Your task to perform on an android device: all mails in gmail Image 0: 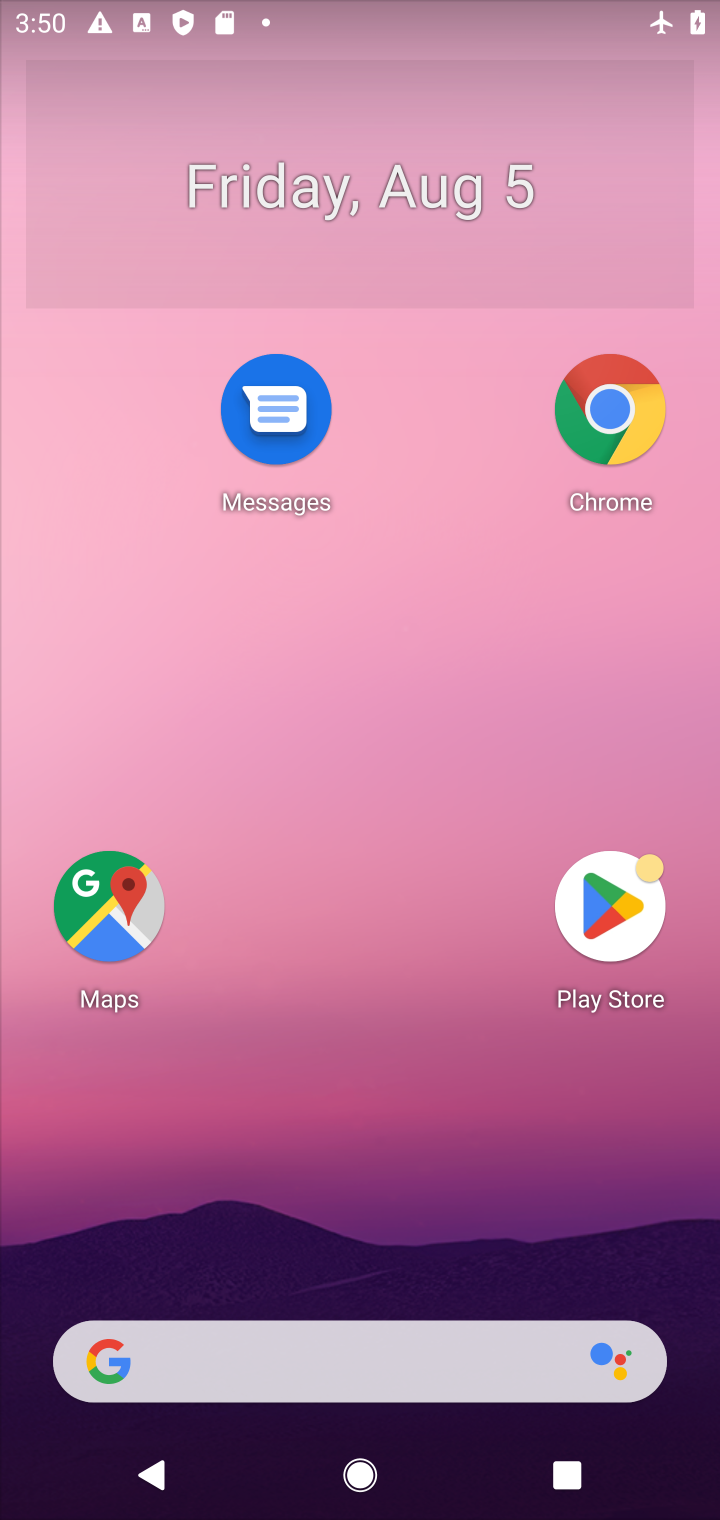
Step 0: drag from (435, 965) to (464, 381)
Your task to perform on an android device: all mails in gmail Image 1: 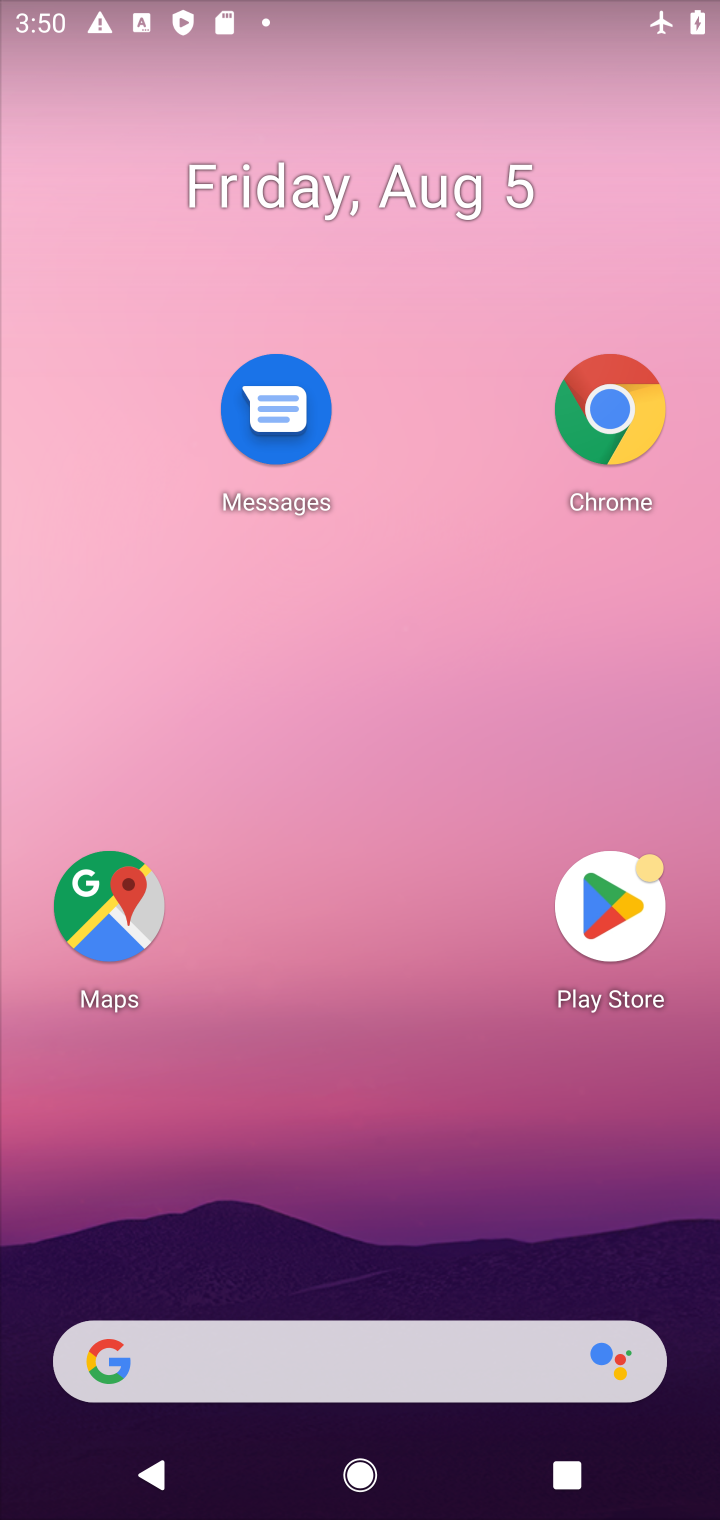
Step 1: drag from (365, 1200) to (419, 274)
Your task to perform on an android device: all mails in gmail Image 2: 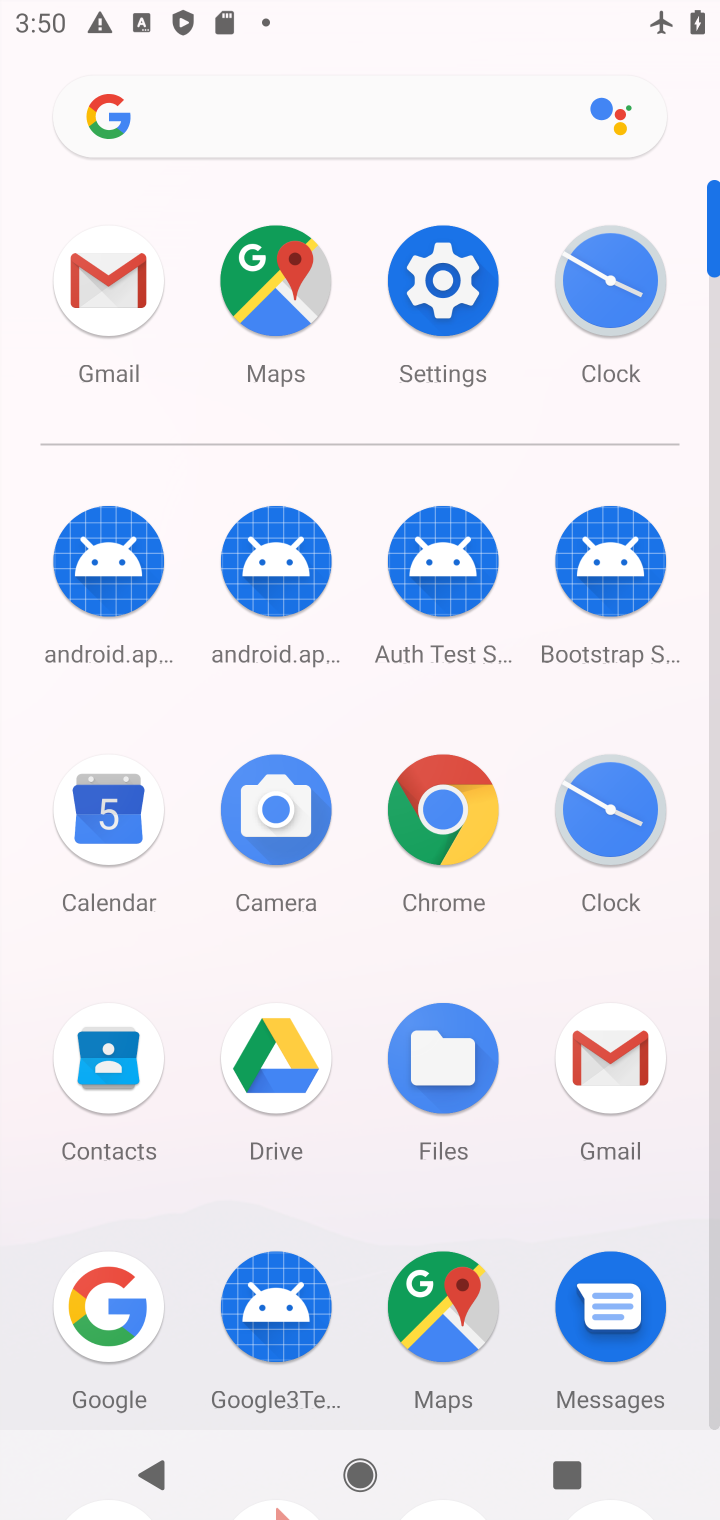
Step 2: click (136, 280)
Your task to perform on an android device: all mails in gmail Image 3: 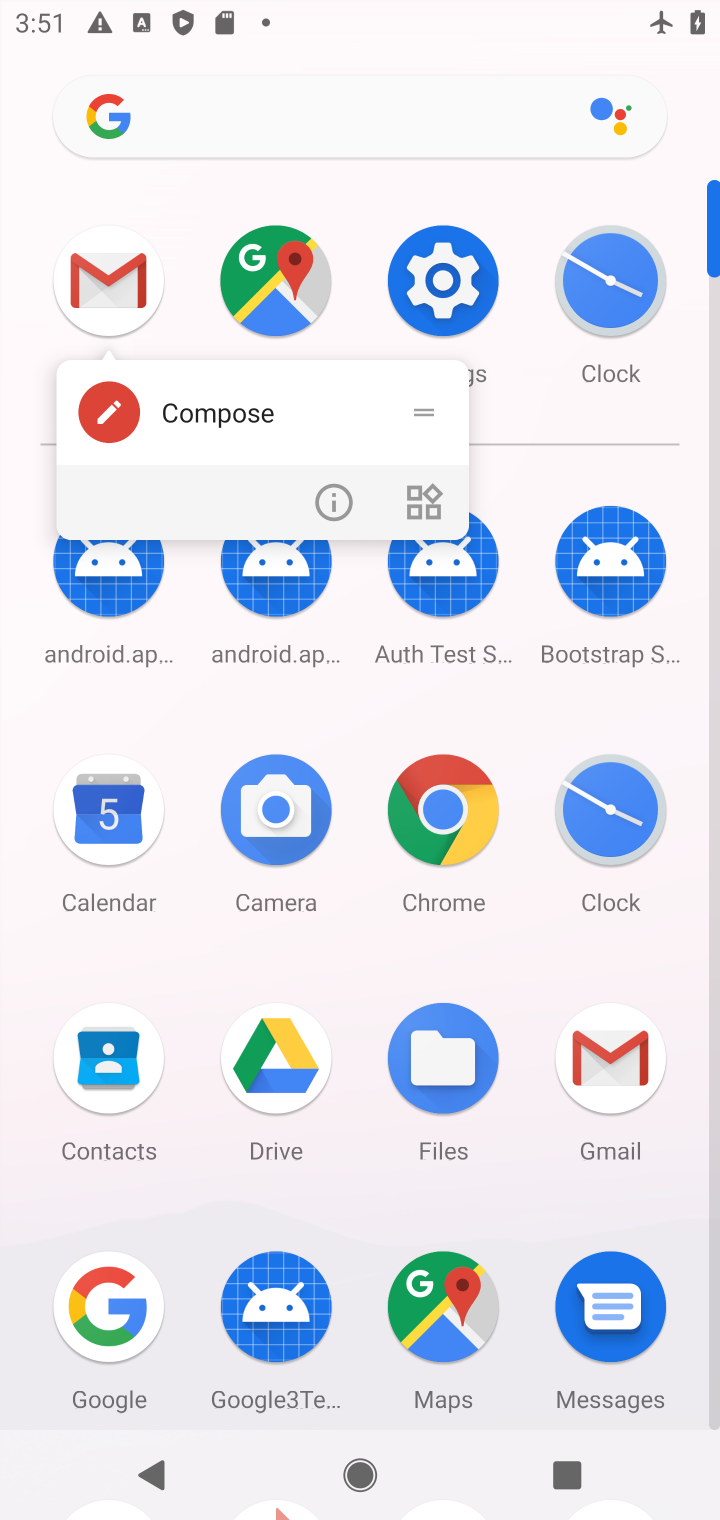
Step 3: click (108, 265)
Your task to perform on an android device: all mails in gmail Image 4: 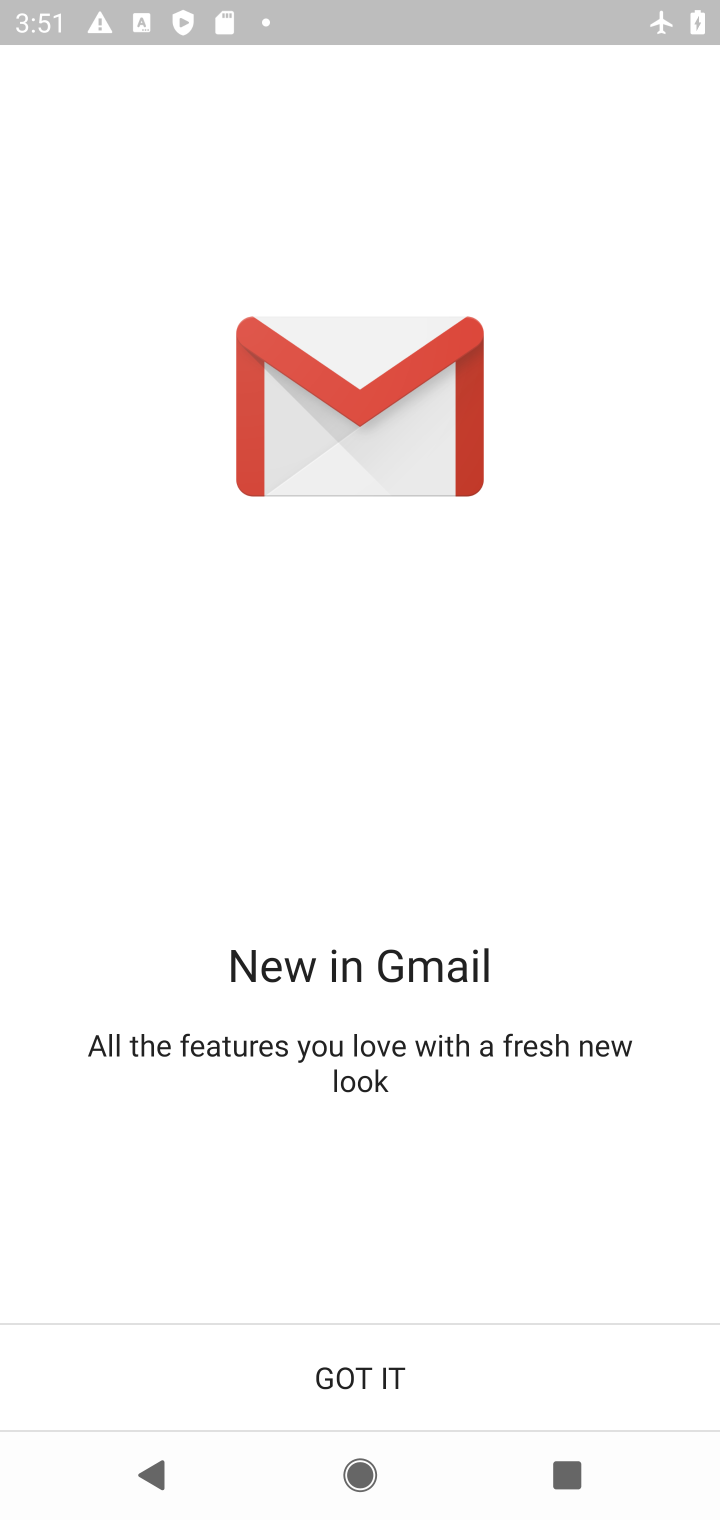
Step 4: click (384, 1364)
Your task to perform on an android device: all mails in gmail Image 5: 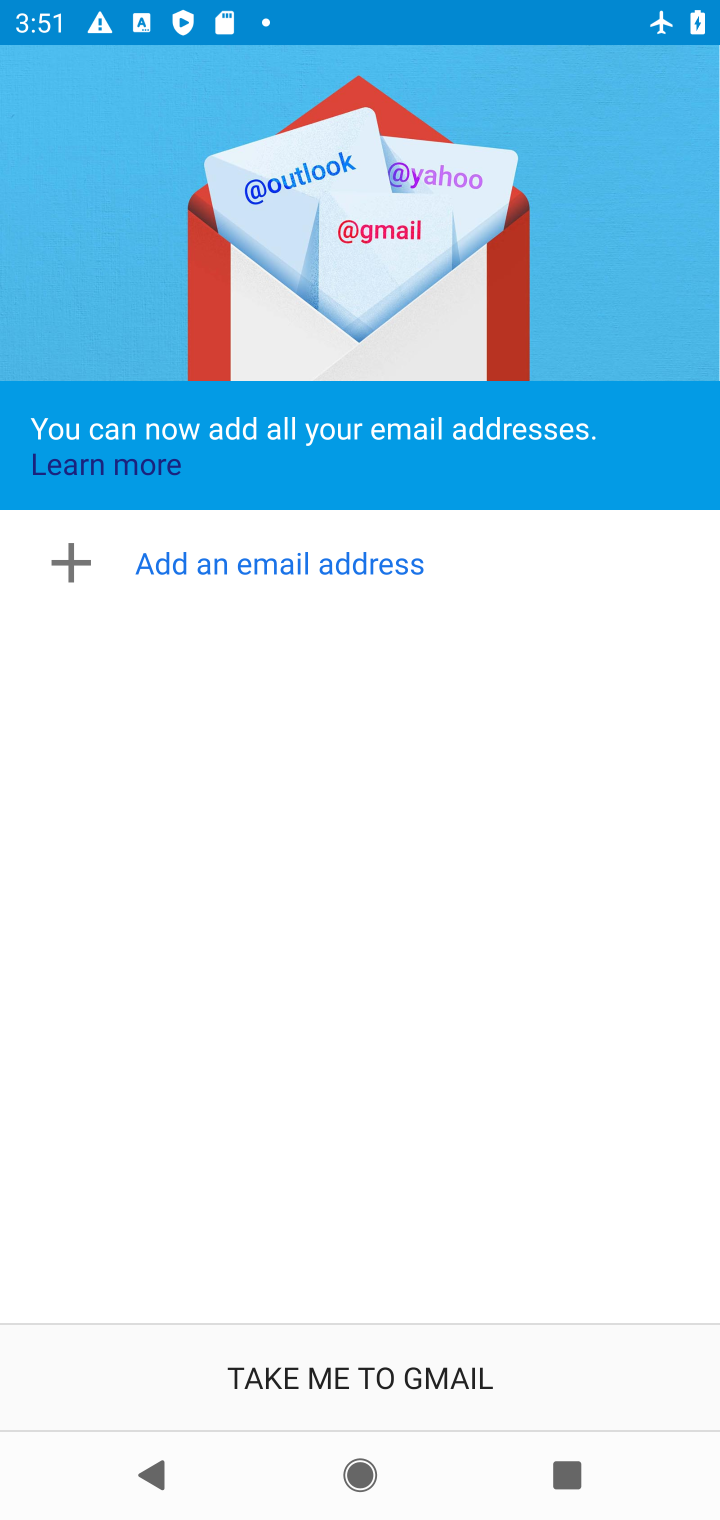
Step 5: click (384, 1364)
Your task to perform on an android device: all mails in gmail Image 6: 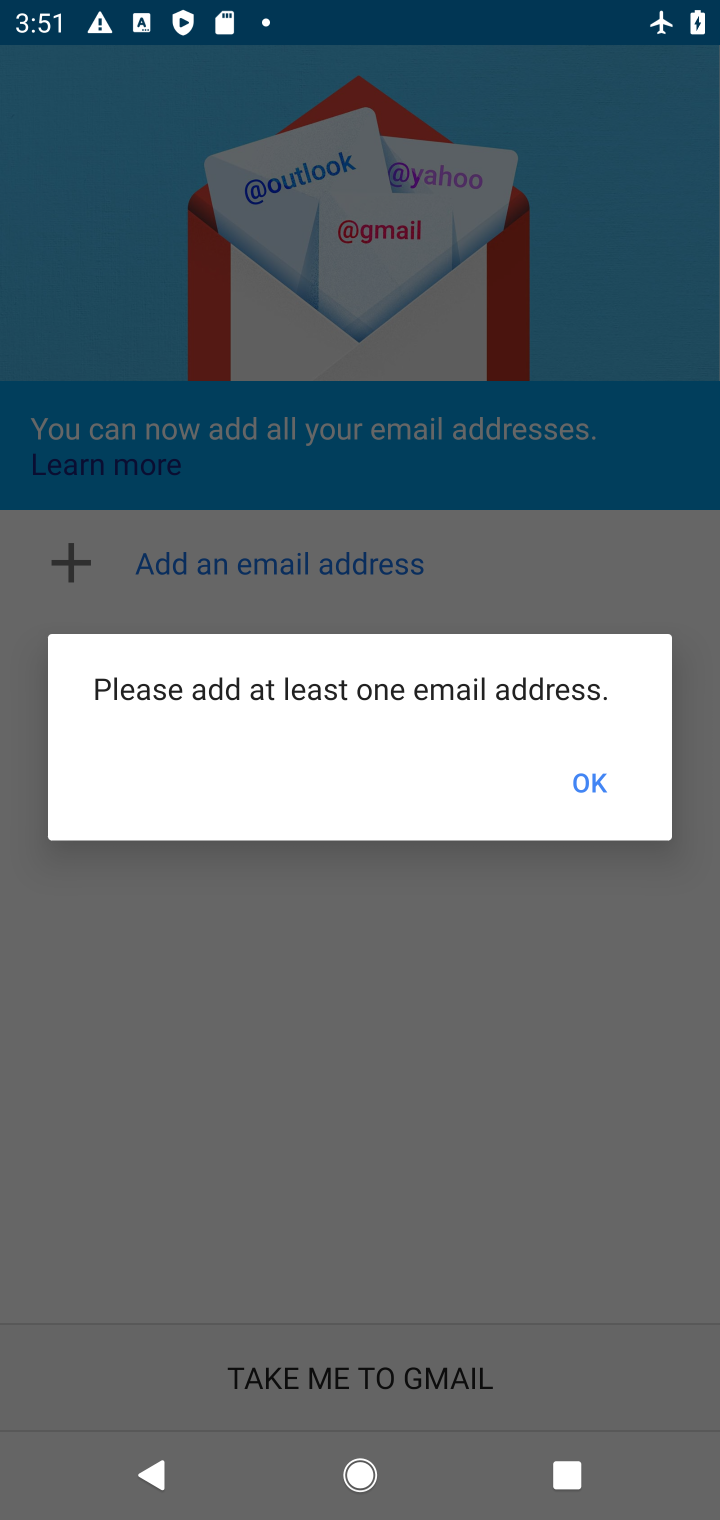
Step 6: click (599, 790)
Your task to perform on an android device: all mails in gmail Image 7: 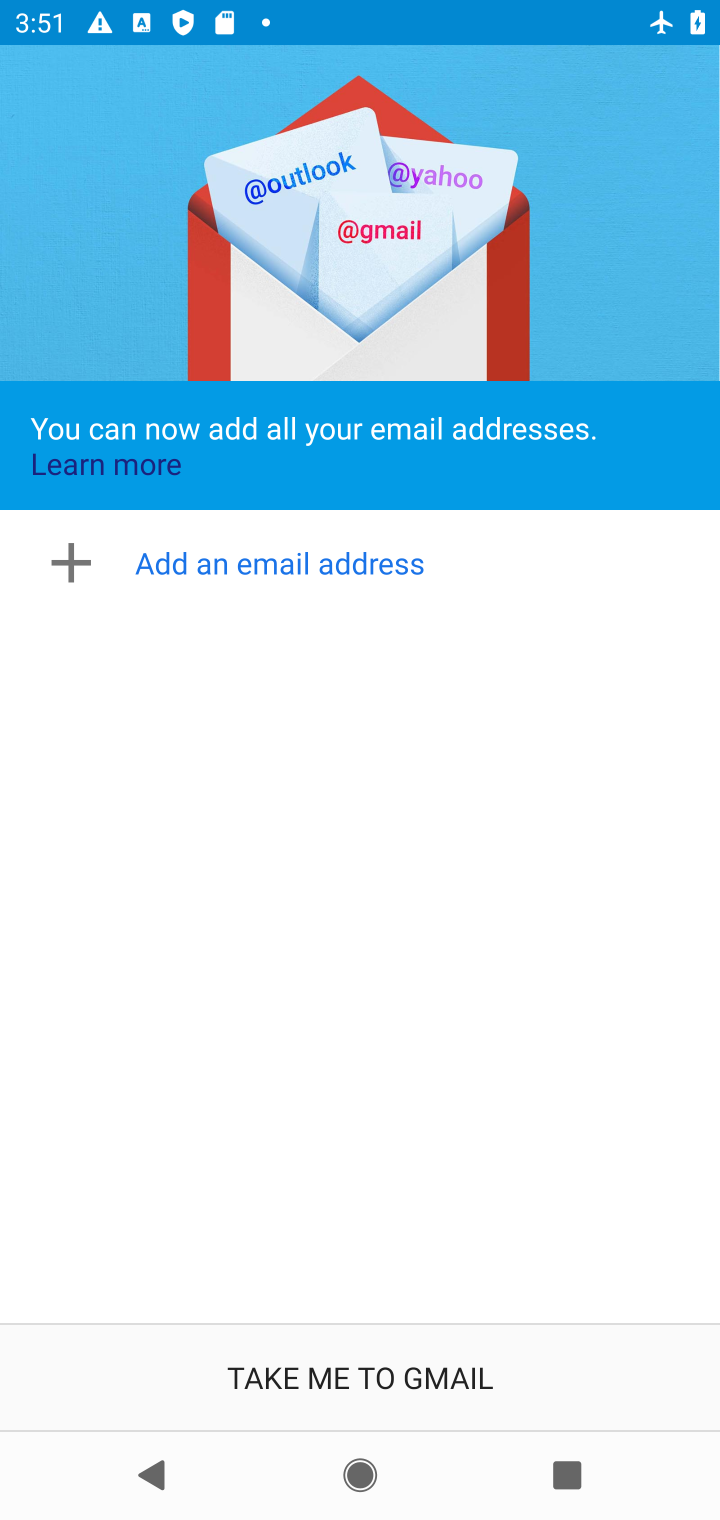
Step 7: task complete